Your task to perform on an android device: show emergency info Image 0: 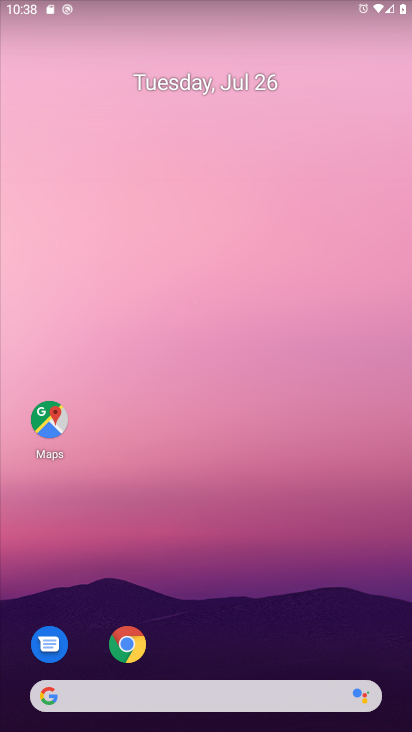
Step 0: drag from (203, 655) to (205, 107)
Your task to perform on an android device: show emergency info Image 1: 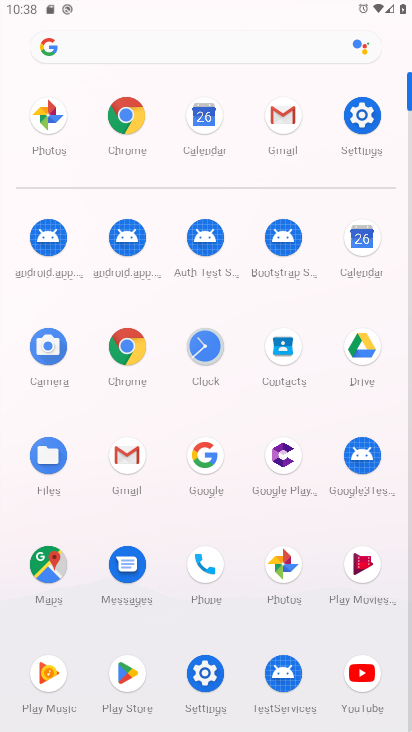
Step 1: click (205, 696)
Your task to perform on an android device: show emergency info Image 2: 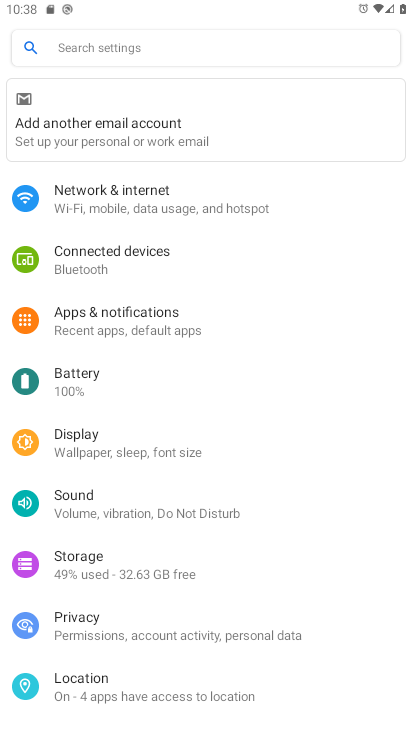
Step 2: drag from (145, 661) to (178, 271)
Your task to perform on an android device: show emergency info Image 3: 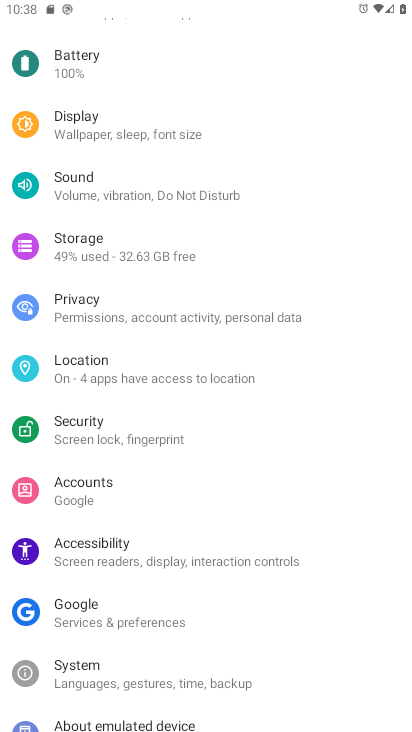
Step 3: drag from (134, 620) to (181, 356)
Your task to perform on an android device: show emergency info Image 4: 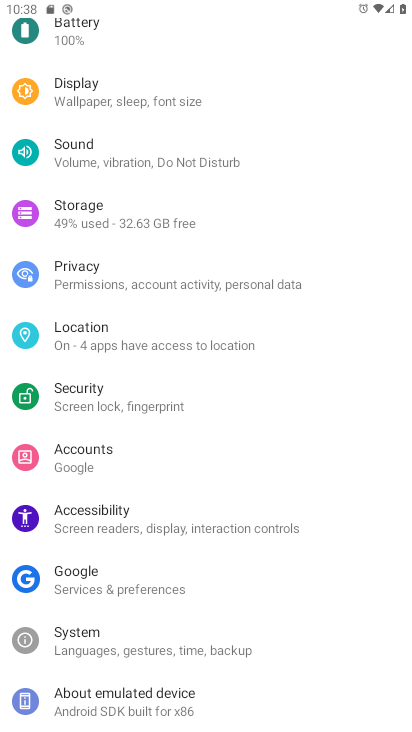
Step 4: click (155, 708)
Your task to perform on an android device: show emergency info Image 5: 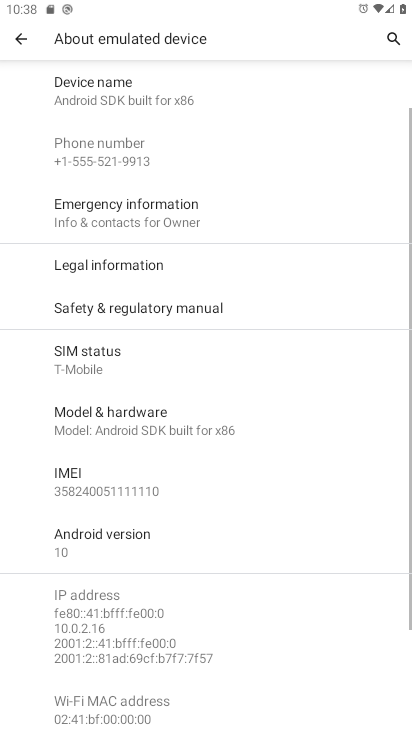
Step 5: click (158, 216)
Your task to perform on an android device: show emergency info Image 6: 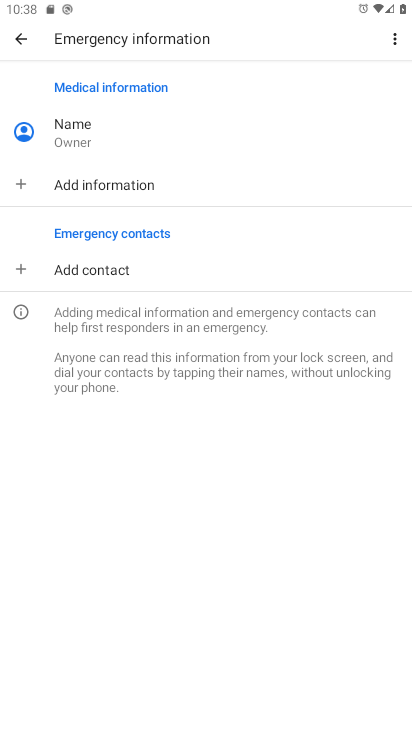
Step 6: task complete